Your task to perform on an android device: Go to wifi settings Image 0: 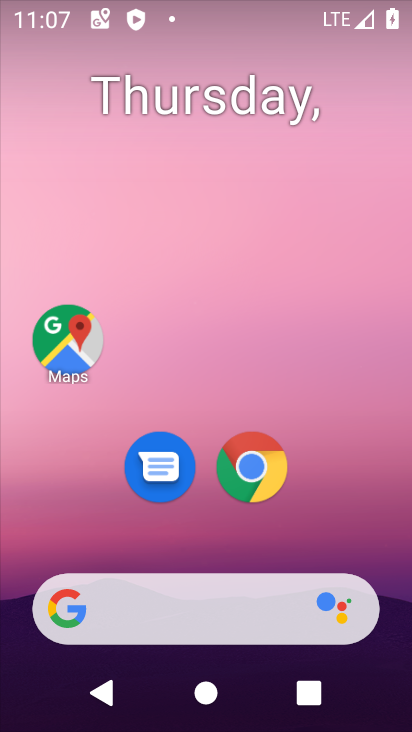
Step 0: drag from (112, 13) to (174, 543)
Your task to perform on an android device: Go to wifi settings Image 1: 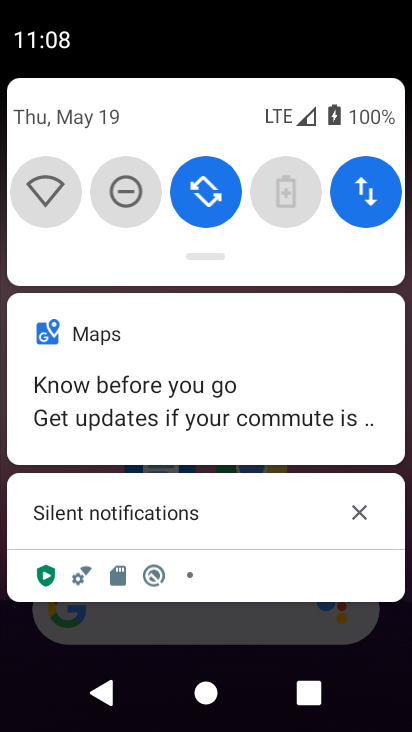
Step 1: click (53, 197)
Your task to perform on an android device: Go to wifi settings Image 2: 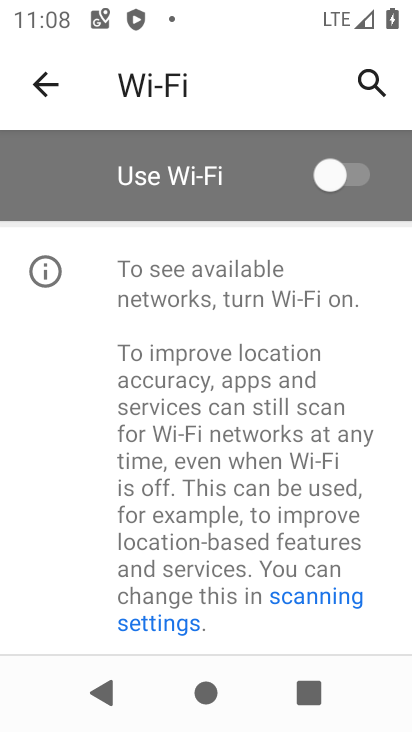
Step 2: task complete